Your task to perform on an android device: When is my next appointment? Image 0: 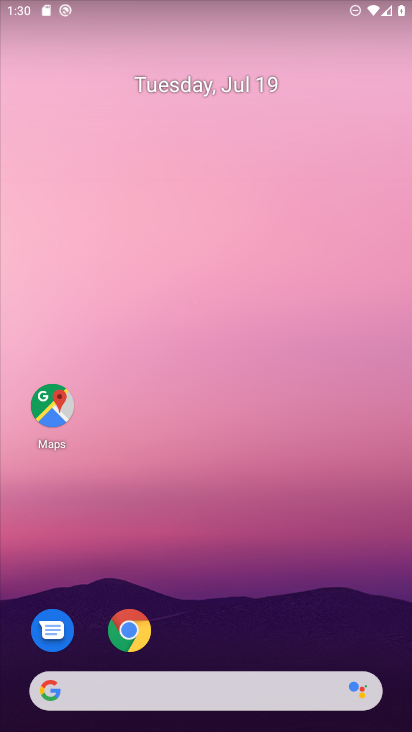
Step 0: press home button
Your task to perform on an android device: When is my next appointment? Image 1: 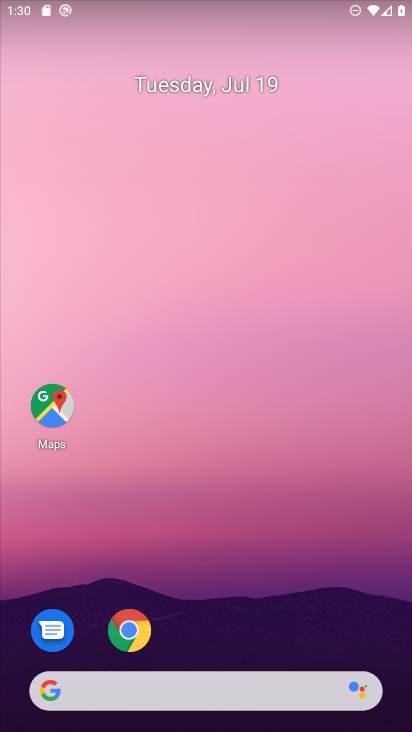
Step 1: drag from (185, 689) to (299, 173)
Your task to perform on an android device: When is my next appointment? Image 2: 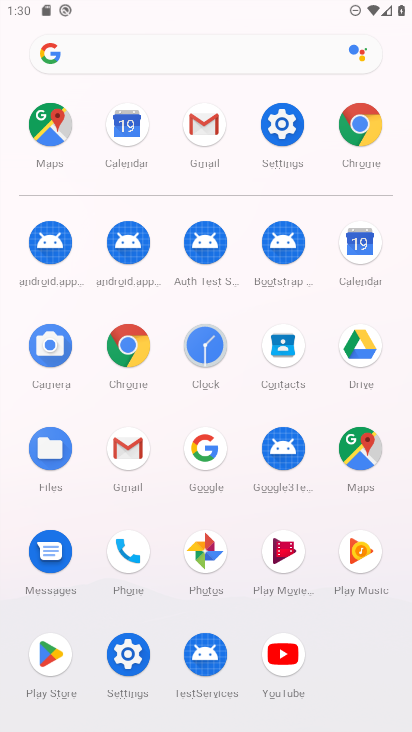
Step 2: click (360, 247)
Your task to perform on an android device: When is my next appointment? Image 3: 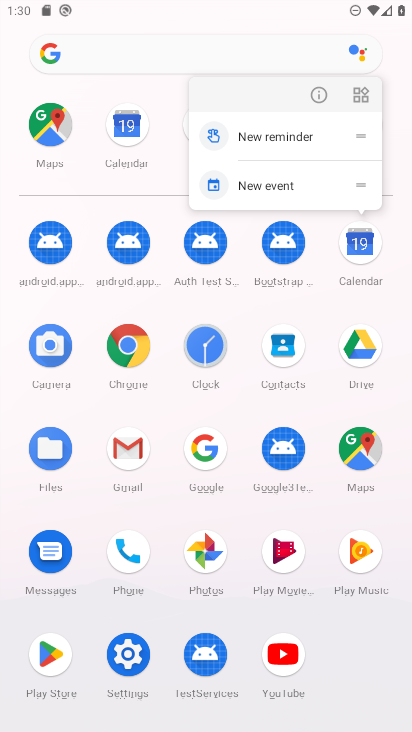
Step 3: click (360, 247)
Your task to perform on an android device: When is my next appointment? Image 4: 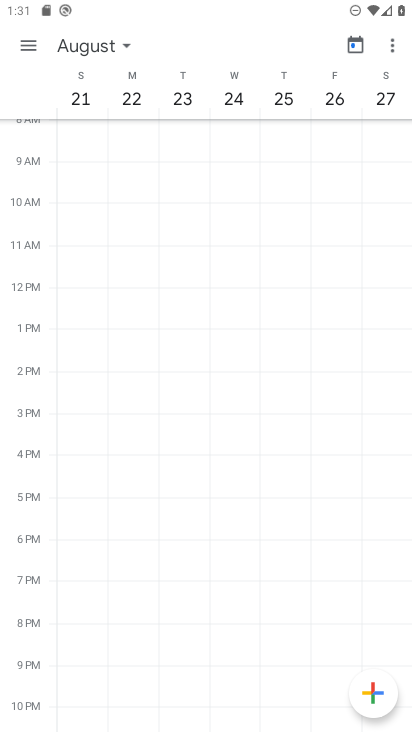
Step 4: click (90, 50)
Your task to perform on an android device: When is my next appointment? Image 5: 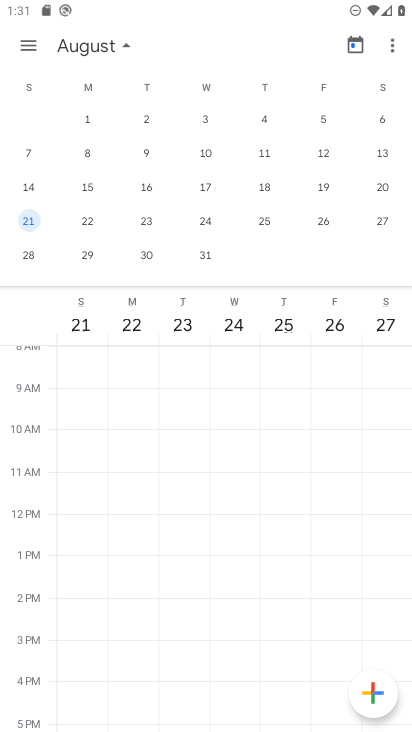
Step 5: drag from (72, 167) to (411, 210)
Your task to perform on an android device: When is my next appointment? Image 6: 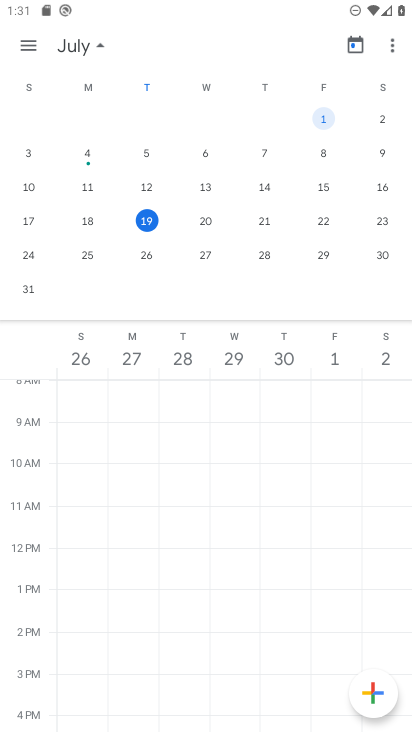
Step 6: click (145, 221)
Your task to perform on an android device: When is my next appointment? Image 7: 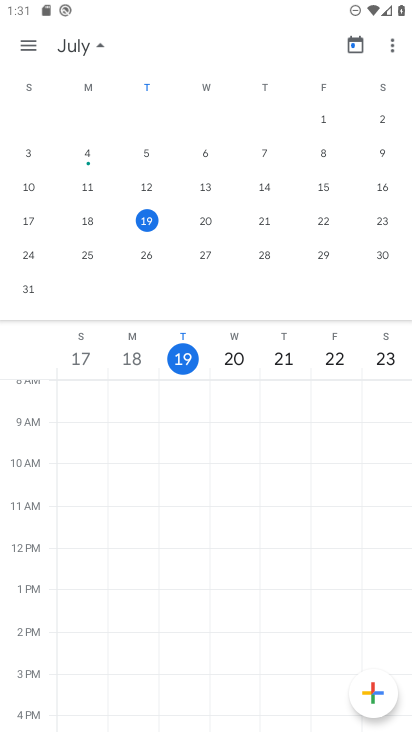
Step 7: click (31, 44)
Your task to perform on an android device: When is my next appointment? Image 8: 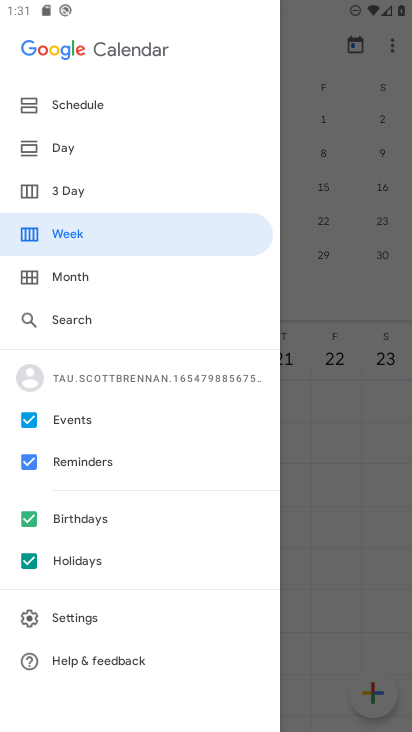
Step 8: click (83, 101)
Your task to perform on an android device: When is my next appointment? Image 9: 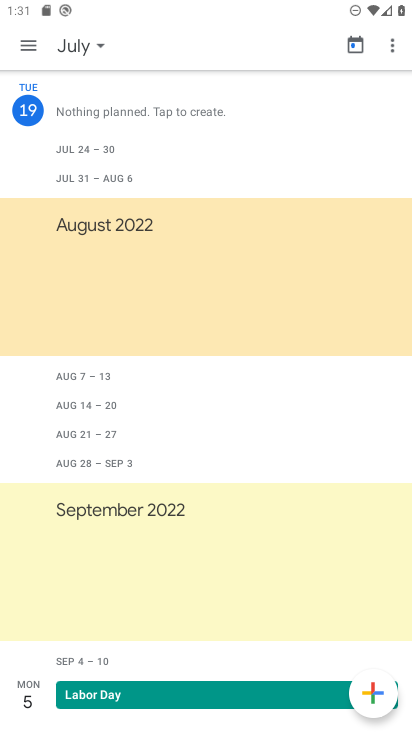
Step 9: task complete